Your task to perform on an android device: open wifi settings Image 0: 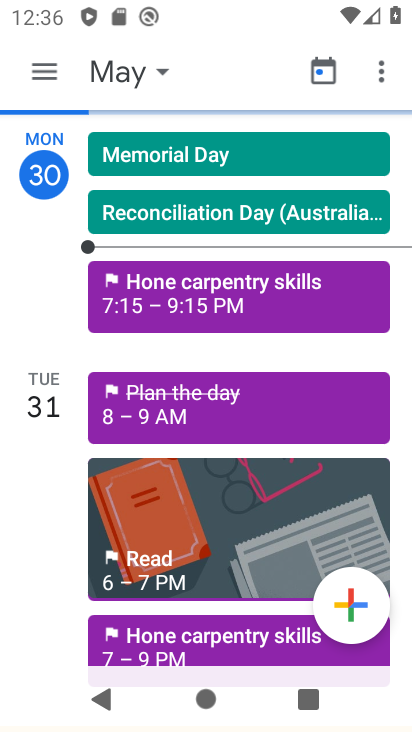
Step 0: drag from (227, 727) to (228, 13)
Your task to perform on an android device: open wifi settings Image 1: 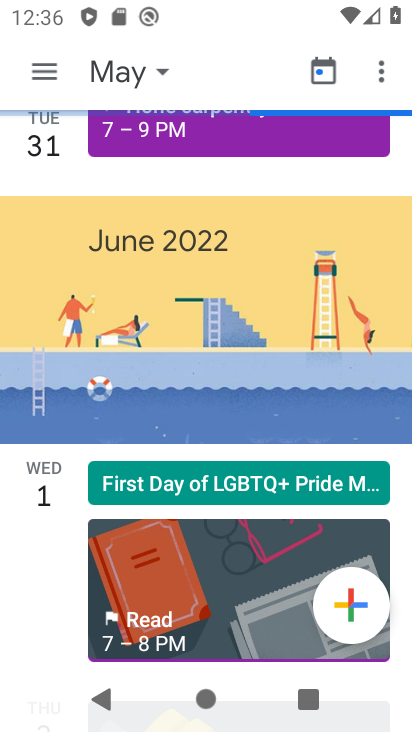
Step 1: press home button
Your task to perform on an android device: open wifi settings Image 2: 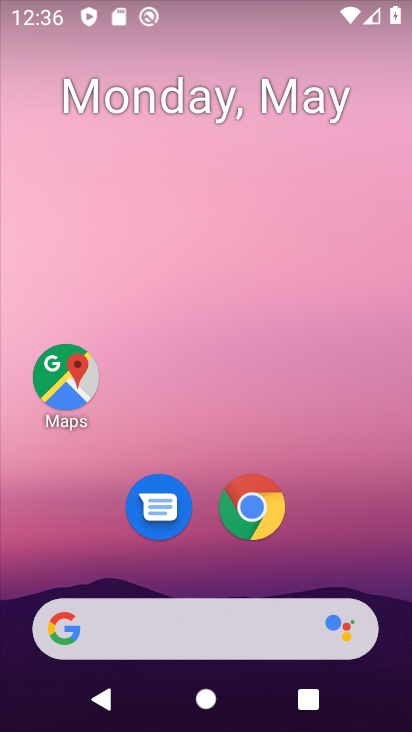
Step 2: drag from (231, 721) to (238, 96)
Your task to perform on an android device: open wifi settings Image 3: 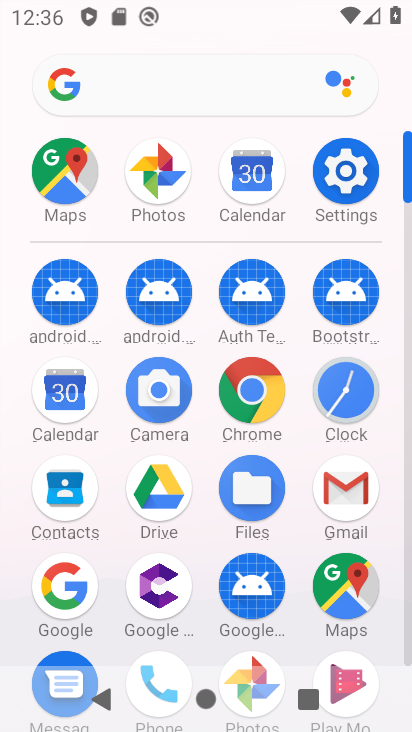
Step 3: click (361, 168)
Your task to perform on an android device: open wifi settings Image 4: 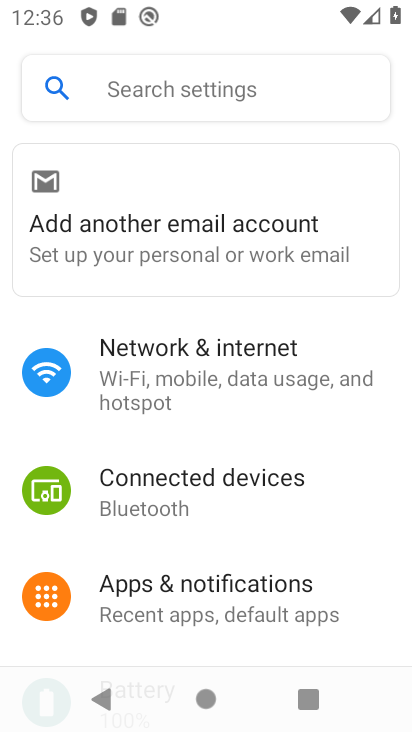
Step 4: click (174, 373)
Your task to perform on an android device: open wifi settings Image 5: 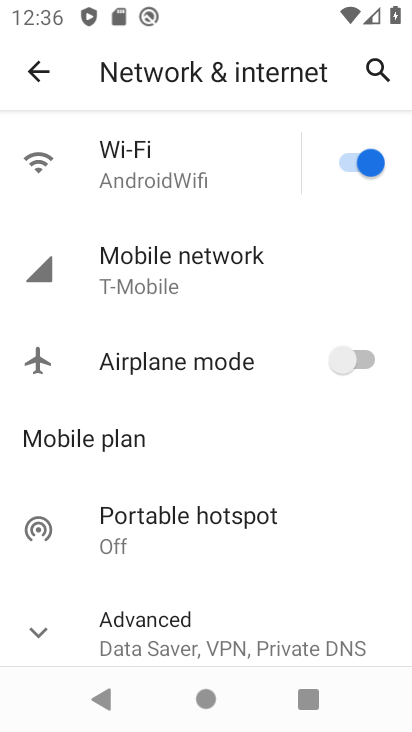
Step 5: click (145, 168)
Your task to perform on an android device: open wifi settings Image 6: 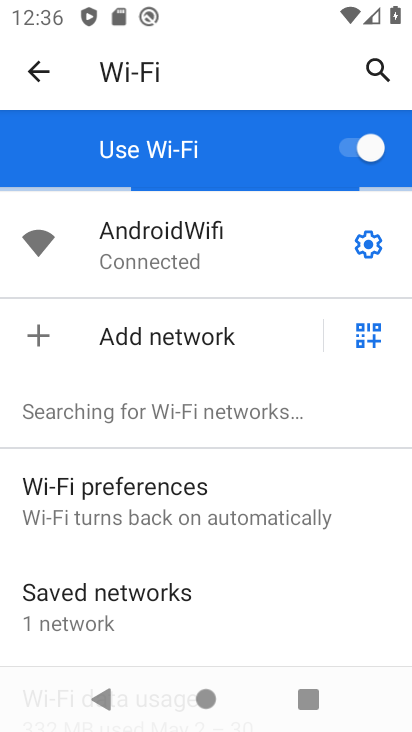
Step 6: task complete